Your task to perform on an android device: turn on notifications settings in the gmail app Image 0: 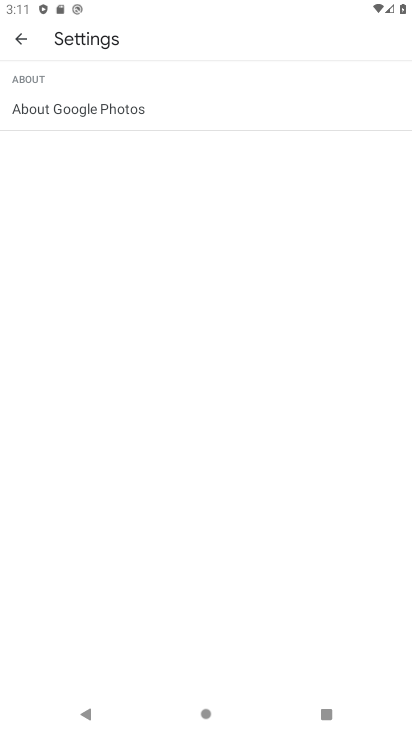
Step 0: click (22, 44)
Your task to perform on an android device: turn on notifications settings in the gmail app Image 1: 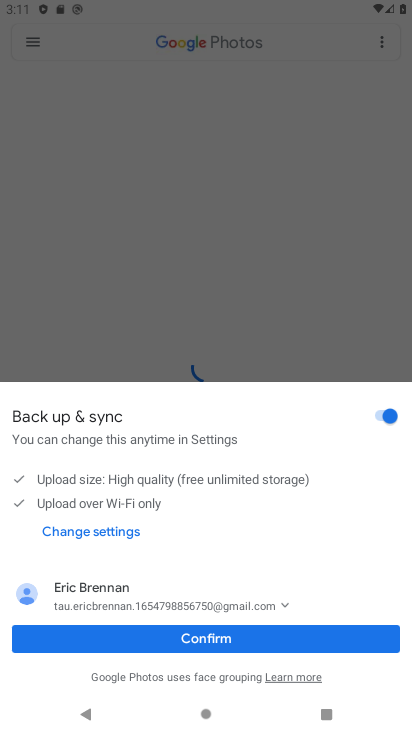
Step 1: click (195, 642)
Your task to perform on an android device: turn on notifications settings in the gmail app Image 2: 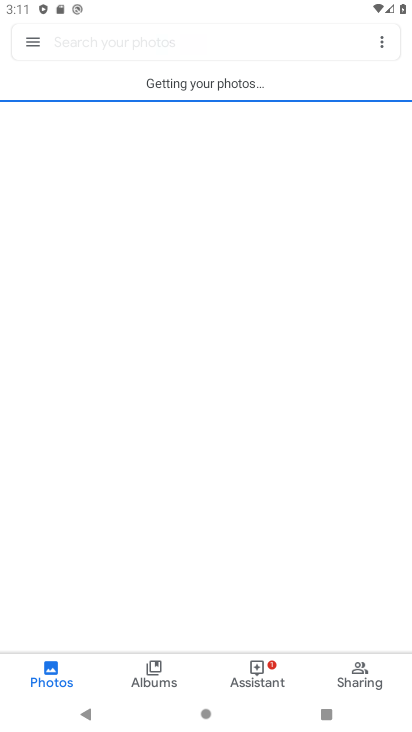
Step 2: click (35, 42)
Your task to perform on an android device: turn on notifications settings in the gmail app Image 3: 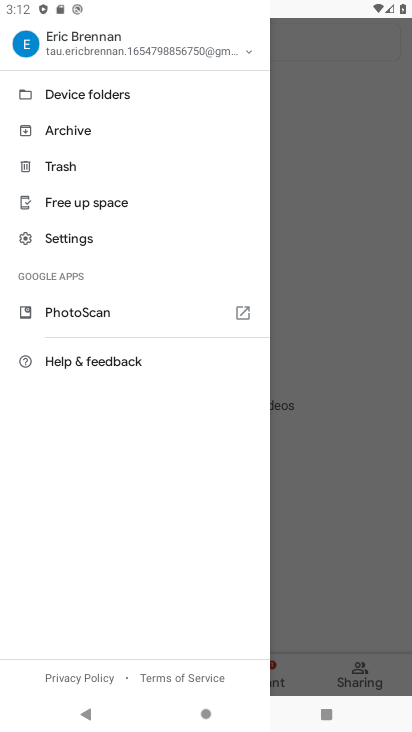
Step 3: click (69, 238)
Your task to perform on an android device: turn on notifications settings in the gmail app Image 4: 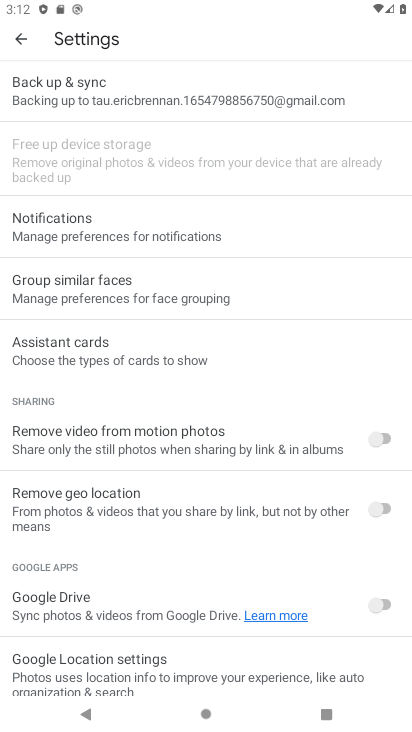
Step 4: click (68, 227)
Your task to perform on an android device: turn on notifications settings in the gmail app Image 5: 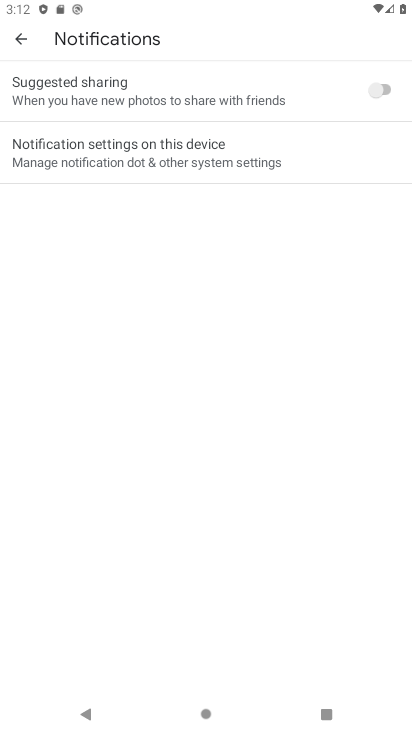
Step 5: click (88, 161)
Your task to perform on an android device: turn on notifications settings in the gmail app Image 6: 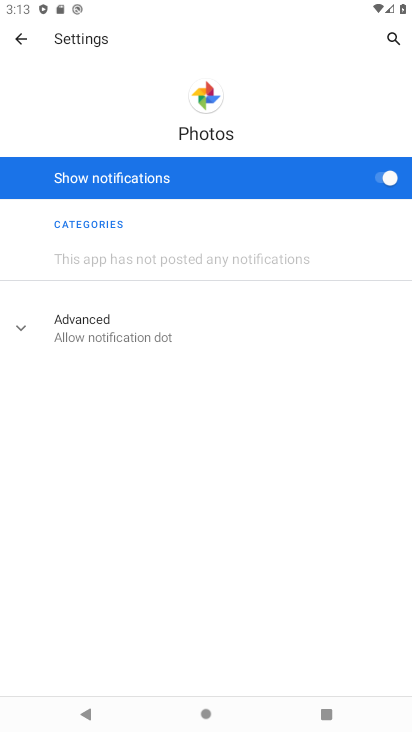
Step 6: press home button
Your task to perform on an android device: turn on notifications settings in the gmail app Image 7: 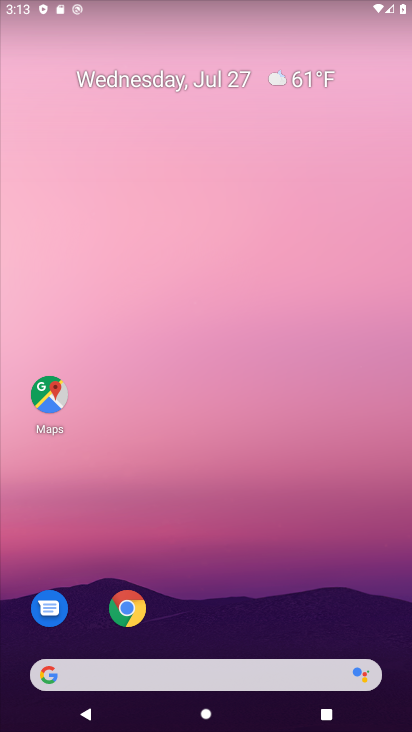
Step 7: drag from (236, 725) to (215, 105)
Your task to perform on an android device: turn on notifications settings in the gmail app Image 8: 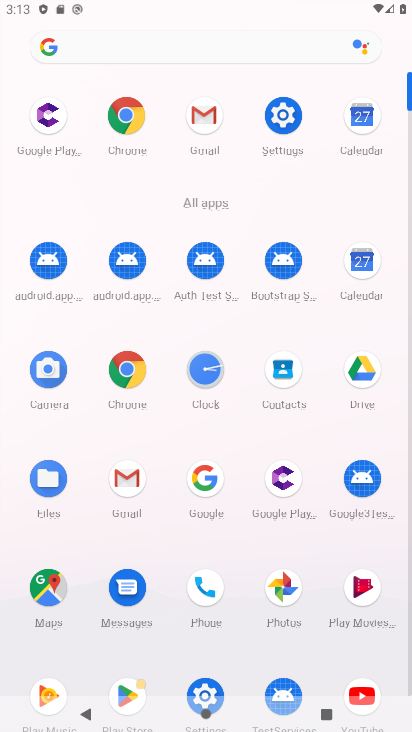
Step 8: click (125, 472)
Your task to perform on an android device: turn on notifications settings in the gmail app Image 9: 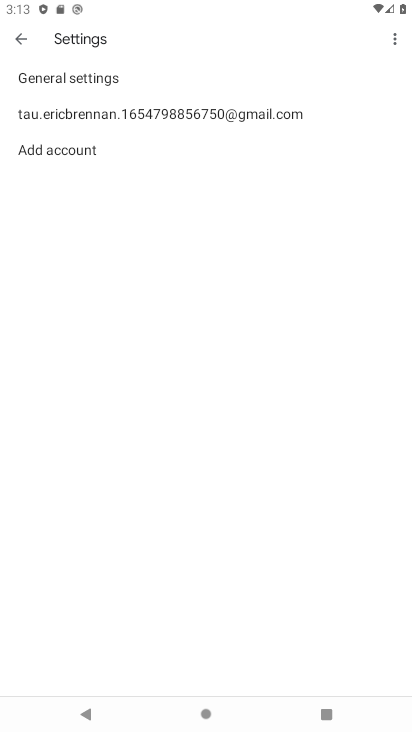
Step 9: click (156, 110)
Your task to perform on an android device: turn on notifications settings in the gmail app Image 10: 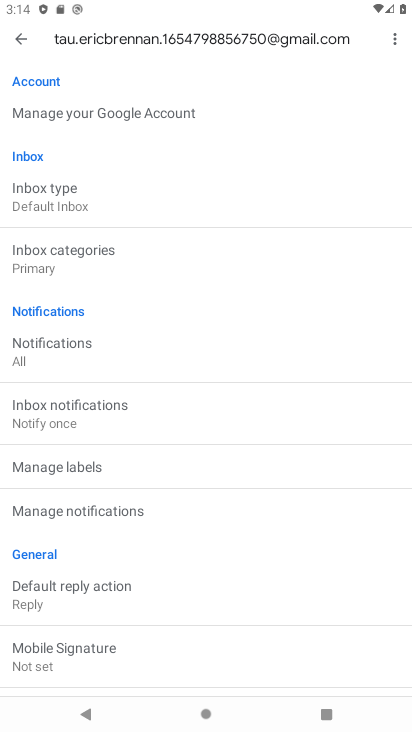
Step 10: task complete